Your task to perform on an android device: Go to Yahoo.com Image 0: 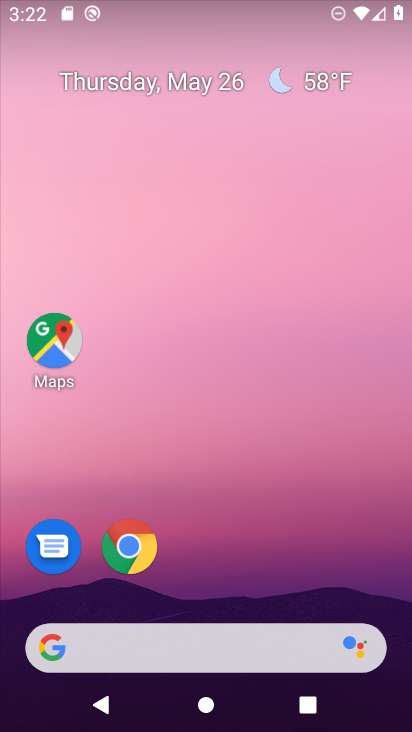
Step 0: click (127, 537)
Your task to perform on an android device: Go to Yahoo.com Image 1: 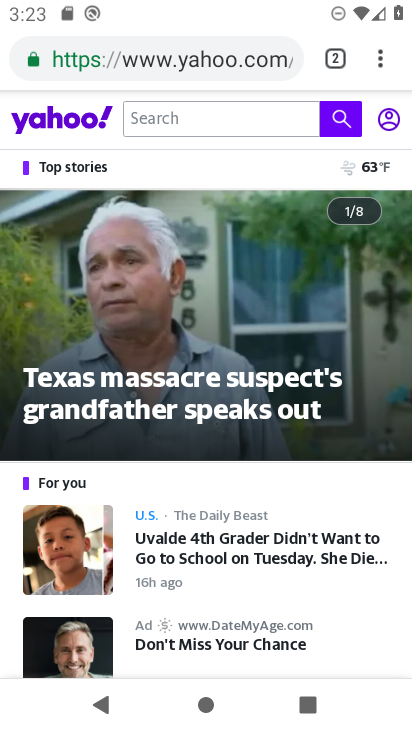
Step 1: task complete